Your task to perform on an android device: Open calendar and show me the fourth week of next month Image 0: 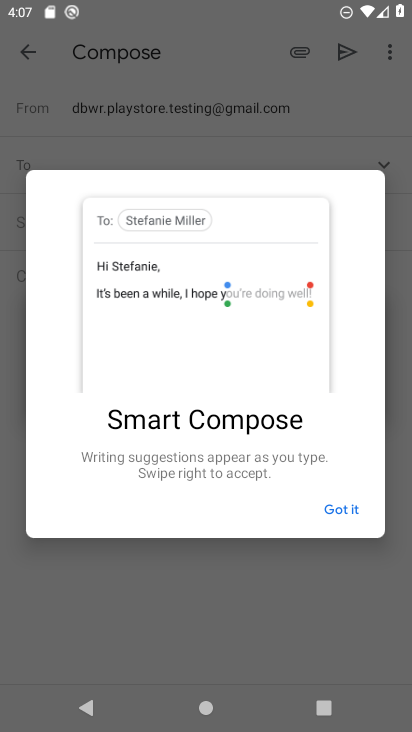
Step 0: press home button
Your task to perform on an android device: Open calendar and show me the fourth week of next month Image 1: 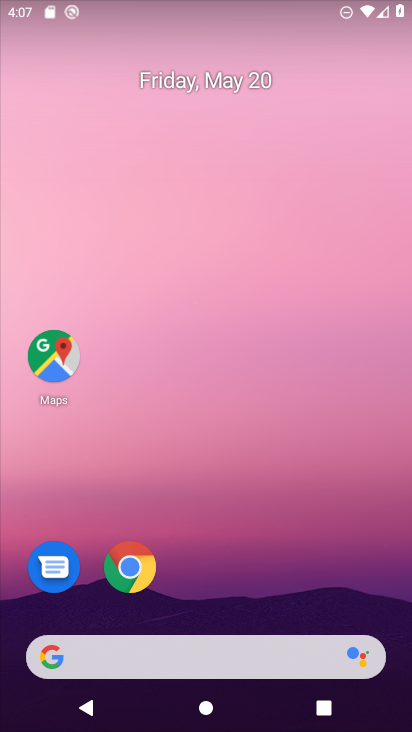
Step 1: drag from (228, 720) to (225, 98)
Your task to perform on an android device: Open calendar and show me the fourth week of next month Image 2: 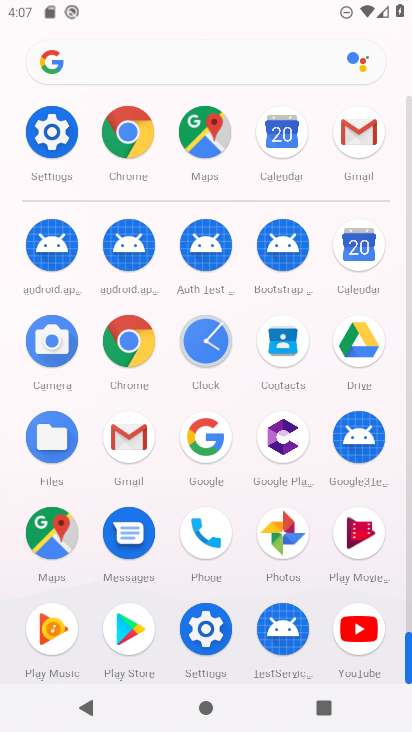
Step 2: click (353, 251)
Your task to perform on an android device: Open calendar and show me the fourth week of next month Image 3: 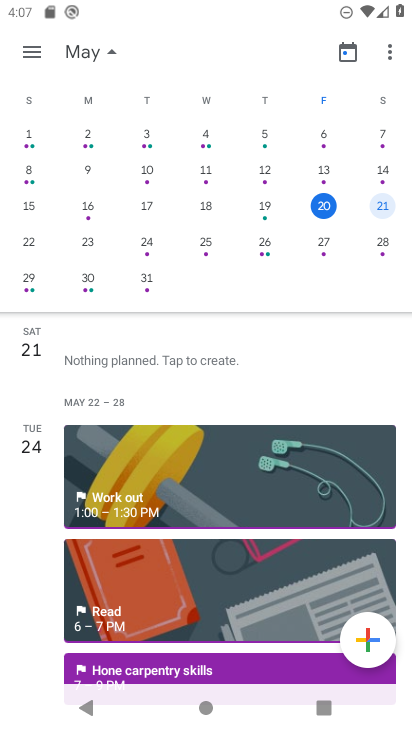
Step 3: drag from (317, 186) to (9, 239)
Your task to perform on an android device: Open calendar and show me the fourth week of next month Image 4: 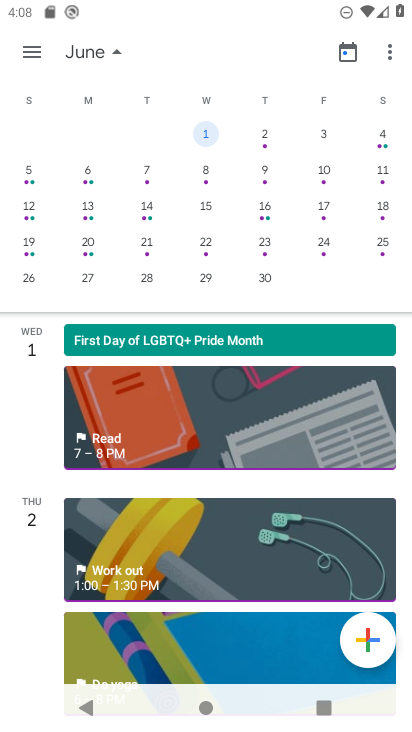
Step 4: click (82, 277)
Your task to perform on an android device: Open calendar and show me the fourth week of next month Image 5: 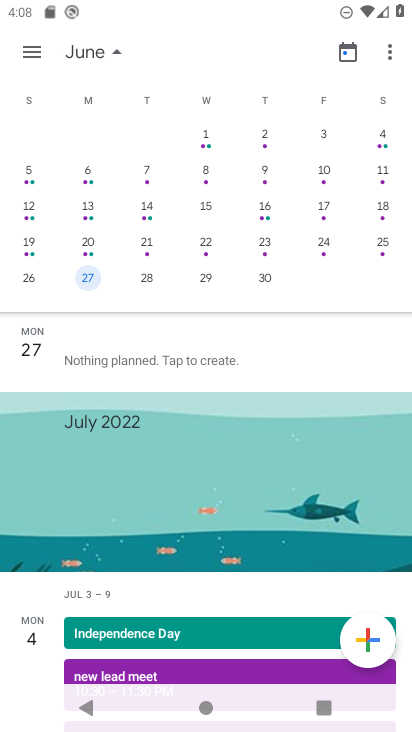
Step 5: click (82, 277)
Your task to perform on an android device: Open calendar and show me the fourth week of next month Image 6: 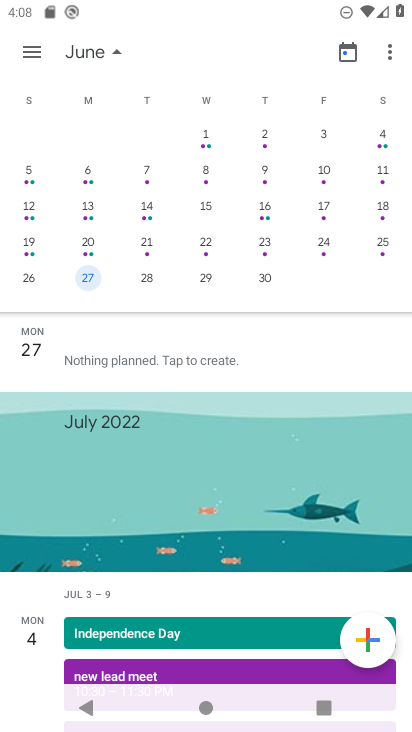
Step 6: click (30, 47)
Your task to perform on an android device: Open calendar and show me the fourth week of next month Image 7: 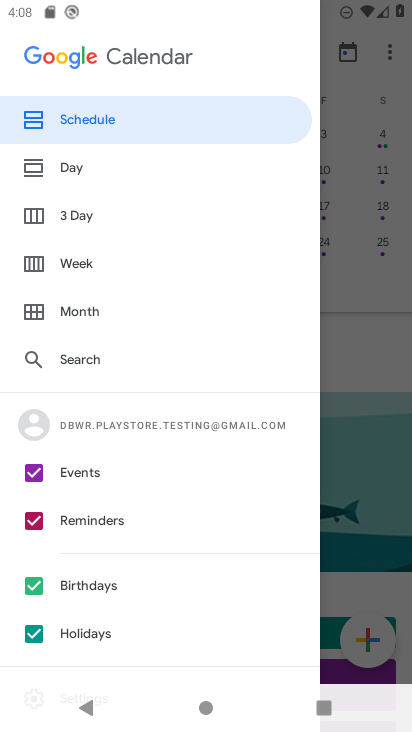
Step 7: click (74, 259)
Your task to perform on an android device: Open calendar and show me the fourth week of next month Image 8: 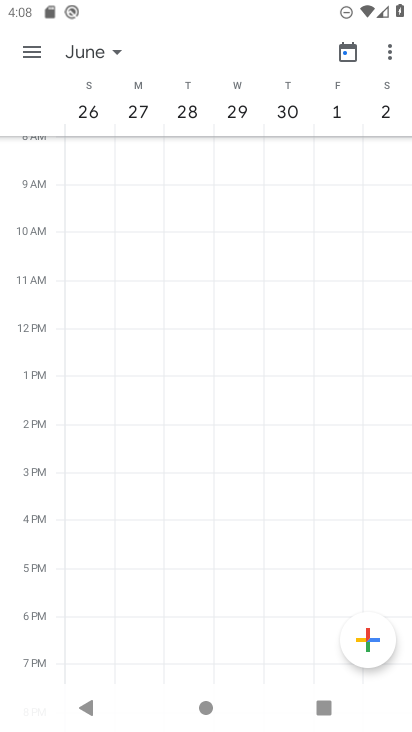
Step 8: task complete